Your task to perform on an android device: toggle wifi Image 0: 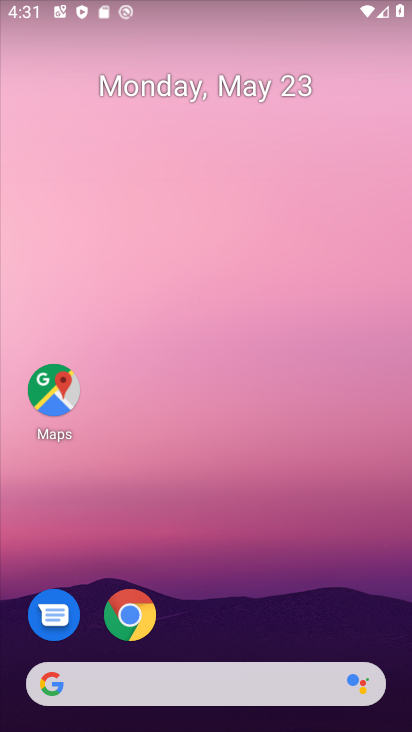
Step 0: drag from (216, 6) to (251, 504)
Your task to perform on an android device: toggle wifi Image 1: 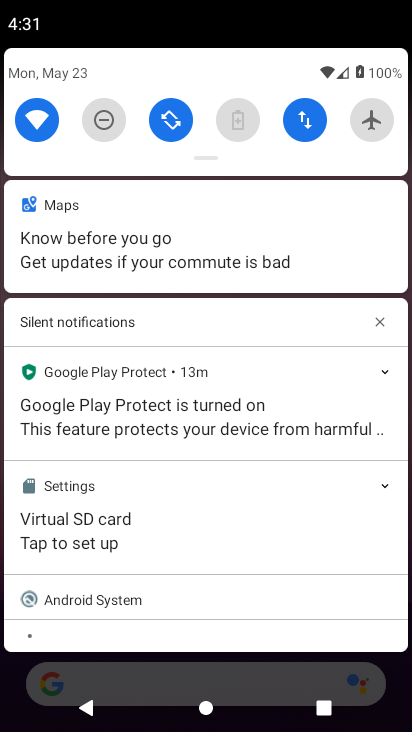
Step 1: click (39, 116)
Your task to perform on an android device: toggle wifi Image 2: 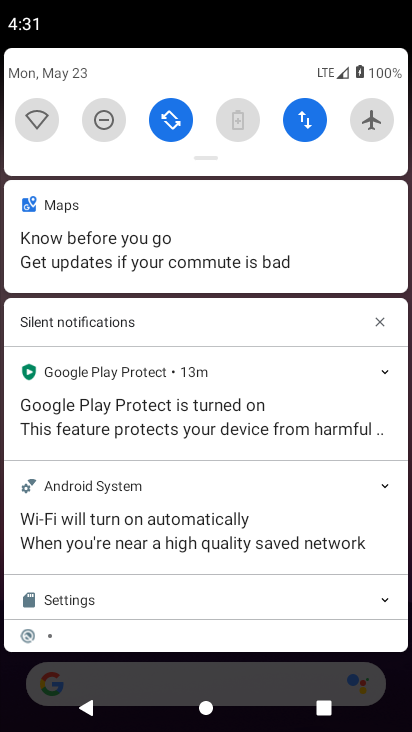
Step 2: task complete